Your task to perform on an android device: Open notification settings Image 0: 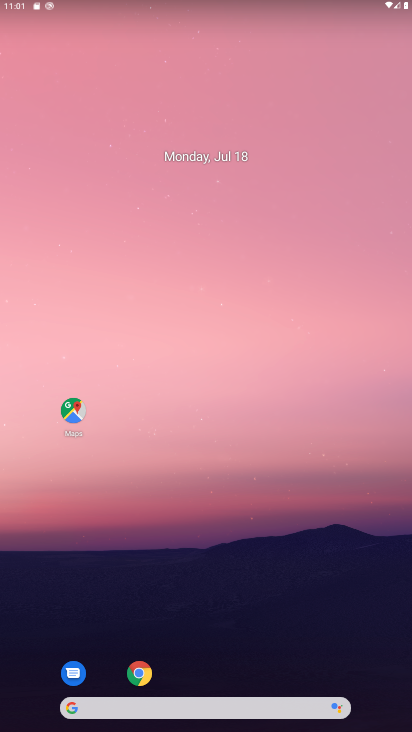
Step 0: drag from (203, 659) to (257, 245)
Your task to perform on an android device: Open notification settings Image 1: 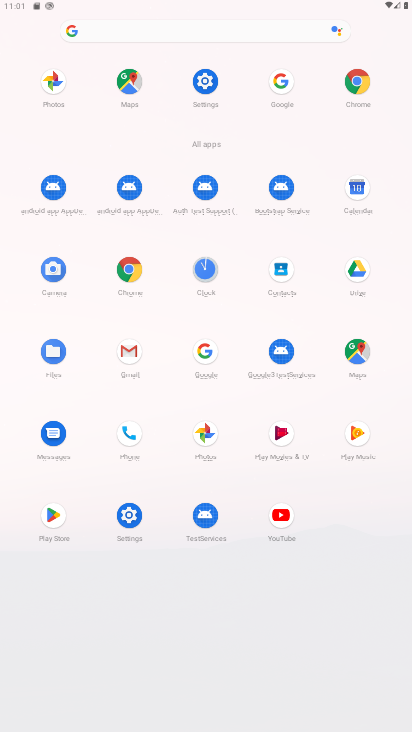
Step 1: click (202, 86)
Your task to perform on an android device: Open notification settings Image 2: 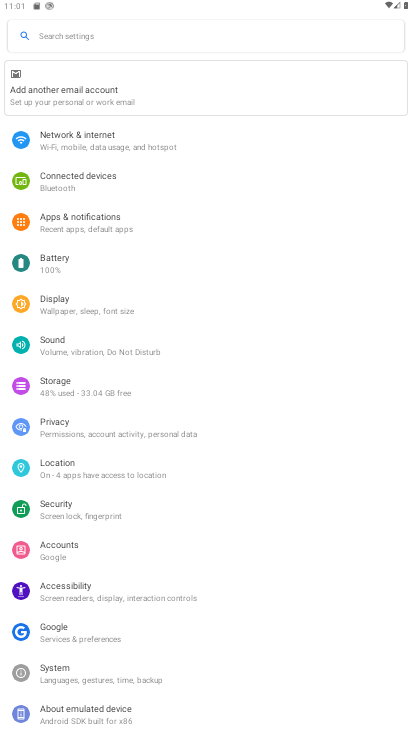
Step 2: click (111, 232)
Your task to perform on an android device: Open notification settings Image 3: 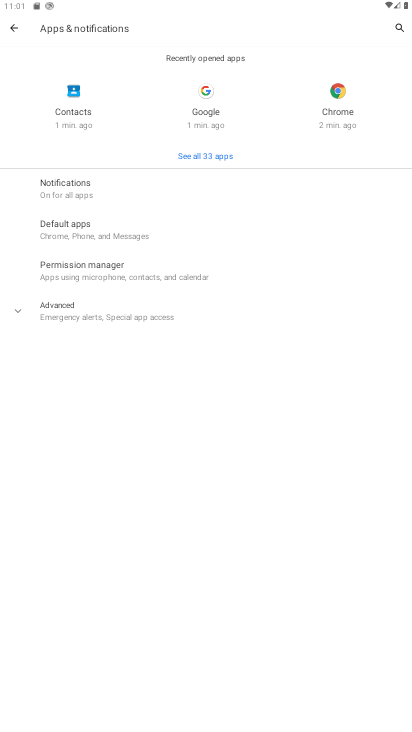
Step 3: click (58, 190)
Your task to perform on an android device: Open notification settings Image 4: 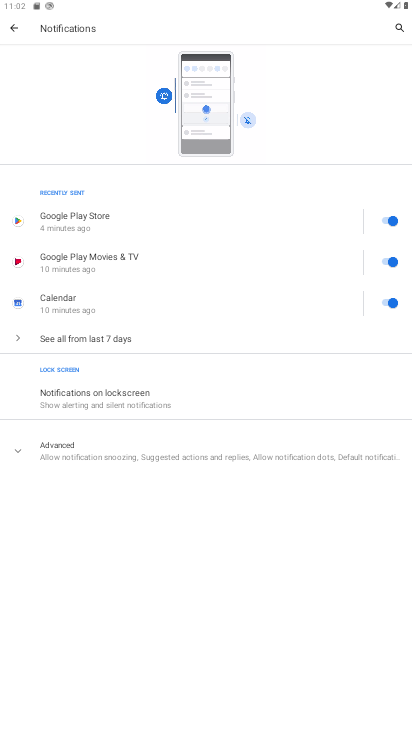
Step 4: task complete